Your task to perform on an android device: turn on improve location accuracy Image 0: 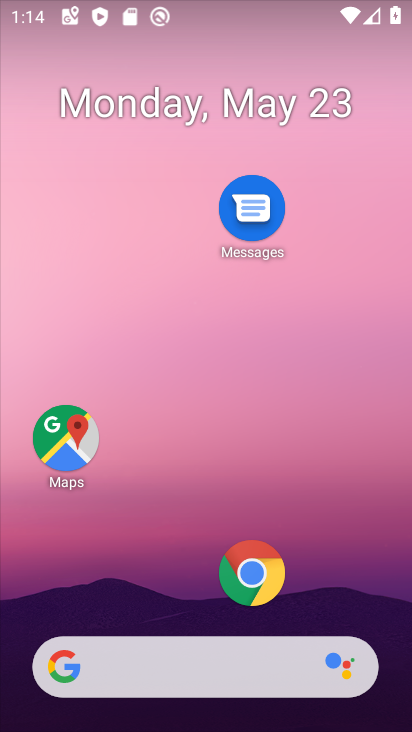
Step 0: drag from (185, 560) to (207, 233)
Your task to perform on an android device: turn on improve location accuracy Image 1: 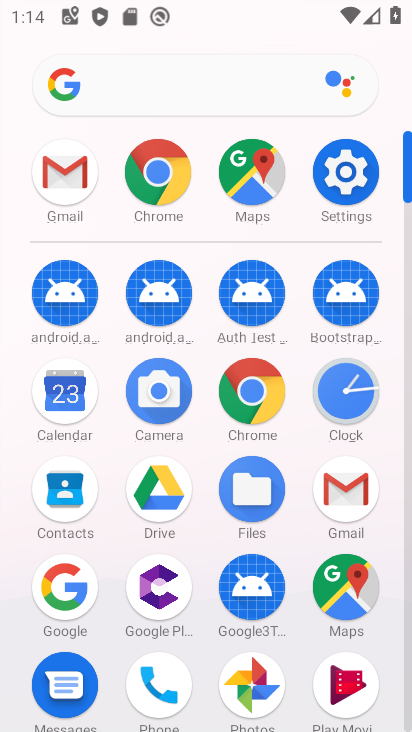
Step 1: click (360, 186)
Your task to perform on an android device: turn on improve location accuracy Image 2: 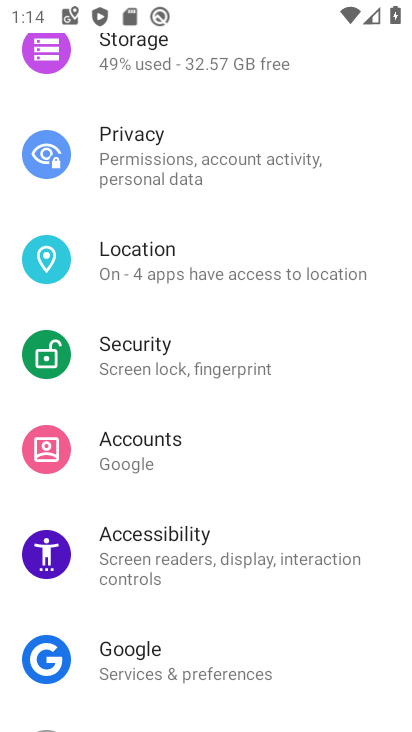
Step 2: click (234, 263)
Your task to perform on an android device: turn on improve location accuracy Image 3: 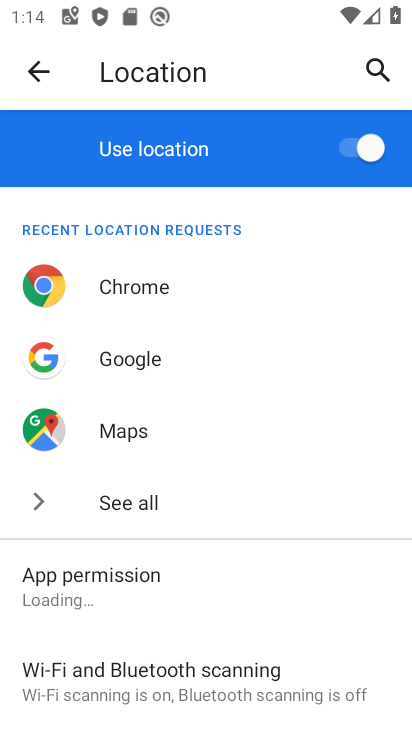
Step 3: drag from (294, 590) to (318, 313)
Your task to perform on an android device: turn on improve location accuracy Image 4: 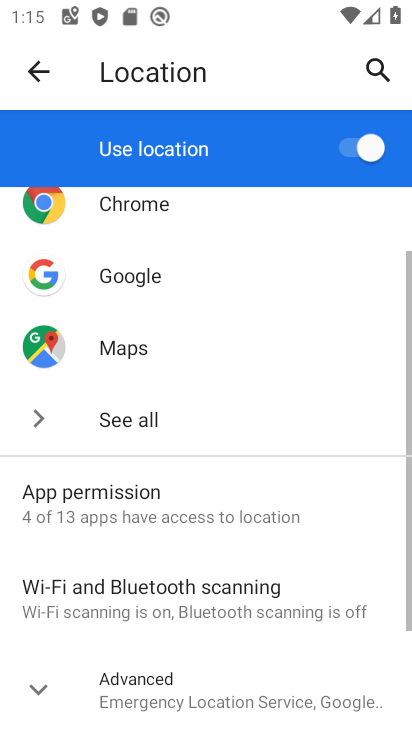
Step 4: drag from (334, 523) to (332, 268)
Your task to perform on an android device: turn on improve location accuracy Image 5: 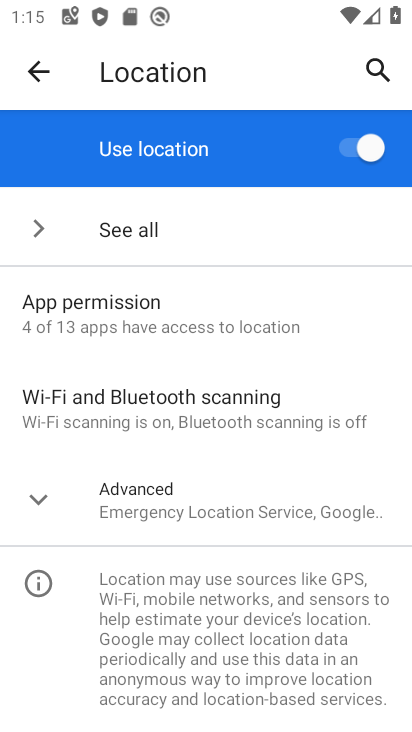
Step 5: click (91, 496)
Your task to perform on an android device: turn on improve location accuracy Image 6: 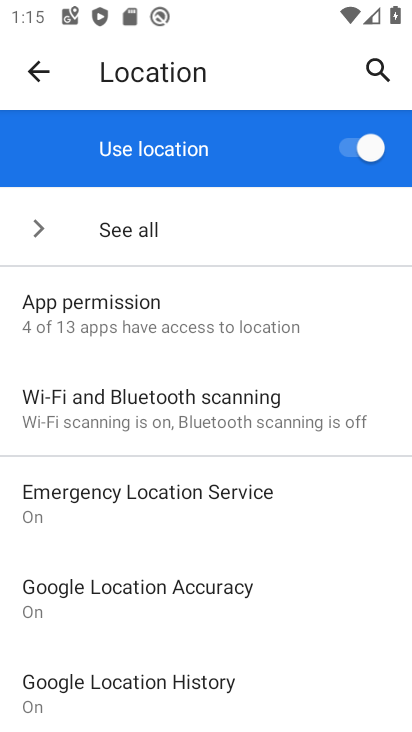
Step 6: click (195, 595)
Your task to perform on an android device: turn on improve location accuracy Image 7: 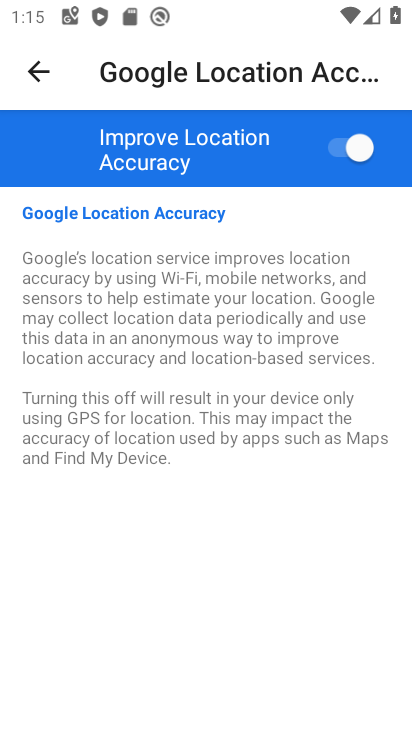
Step 7: task complete